Your task to perform on an android device: Open internet settings Image 0: 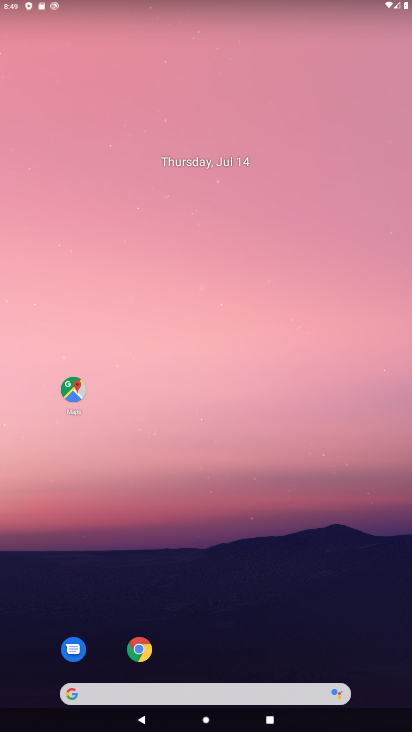
Step 0: drag from (352, 655) to (288, 200)
Your task to perform on an android device: Open internet settings Image 1: 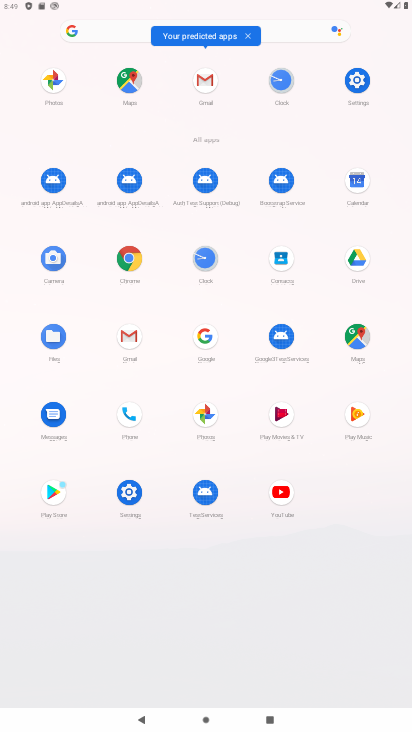
Step 1: click (136, 490)
Your task to perform on an android device: Open internet settings Image 2: 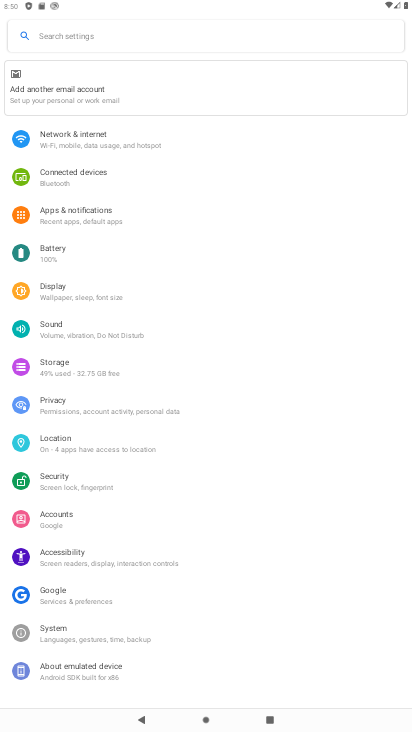
Step 2: click (110, 144)
Your task to perform on an android device: Open internet settings Image 3: 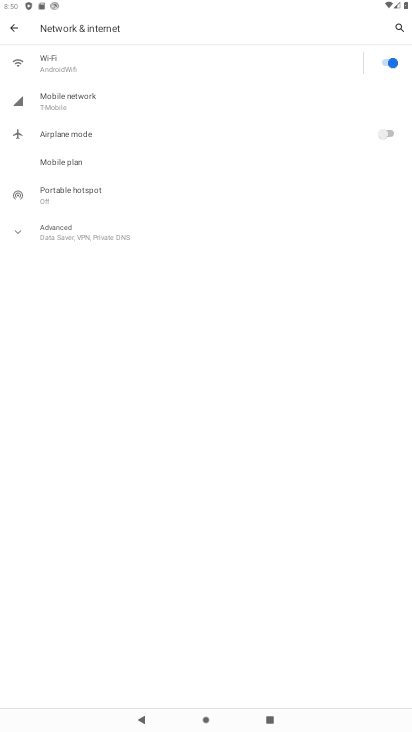
Step 3: task complete